Your task to perform on an android device: change keyboard looks Image 0: 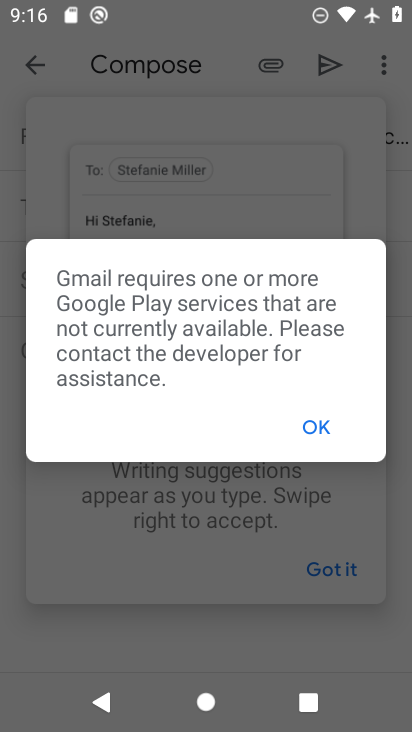
Step 0: press home button
Your task to perform on an android device: change keyboard looks Image 1: 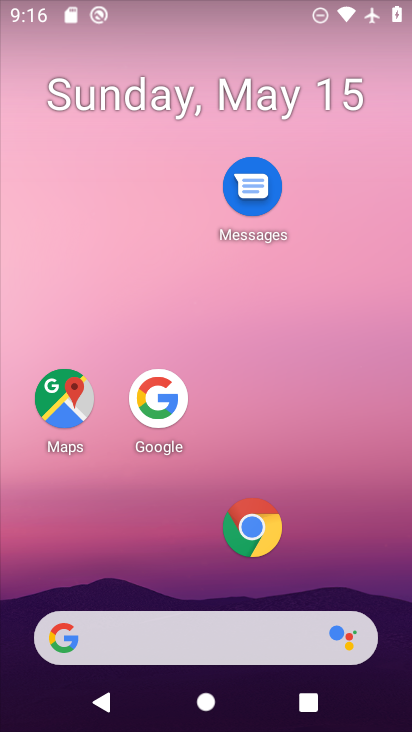
Step 1: drag from (176, 640) to (280, 202)
Your task to perform on an android device: change keyboard looks Image 2: 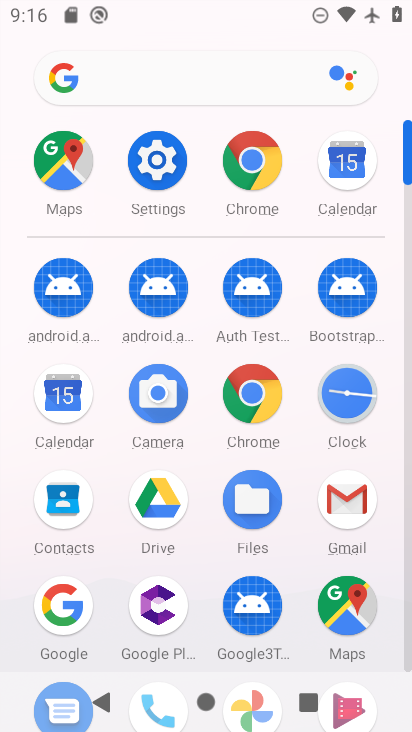
Step 2: click (154, 172)
Your task to perform on an android device: change keyboard looks Image 3: 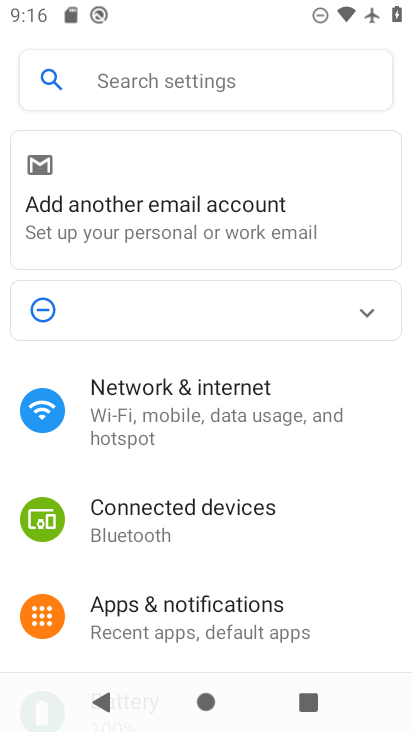
Step 3: drag from (203, 563) to (258, 75)
Your task to perform on an android device: change keyboard looks Image 4: 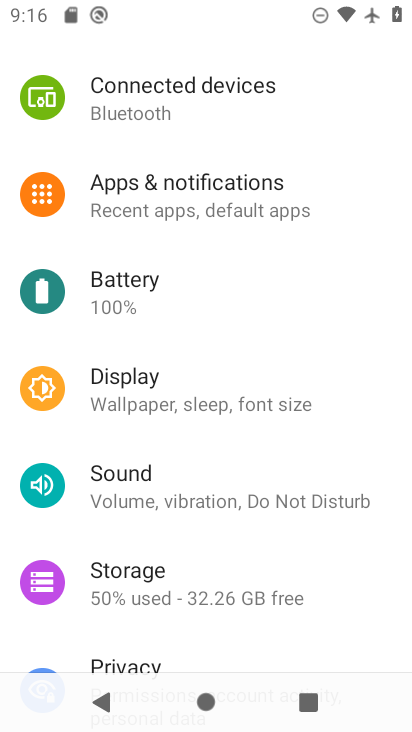
Step 4: drag from (211, 635) to (259, 104)
Your task to perform on an android device: change keyboard looks Image 5: 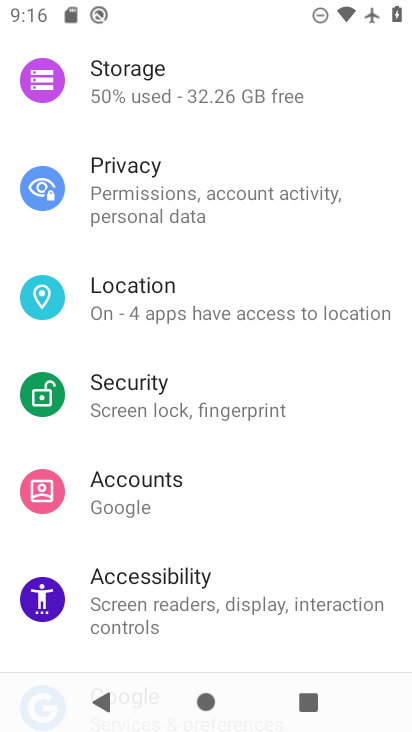
Step 5: drag from (241, 583) to (285, 176)
Your task to perform on an android device: change keyboard looks Image 6: 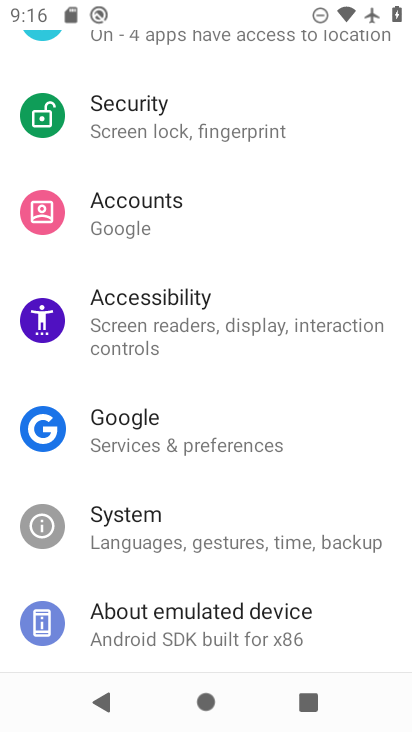
Step 6: click (138, 540)
Your task to perform on an android device: change keyboard looks Image 7: 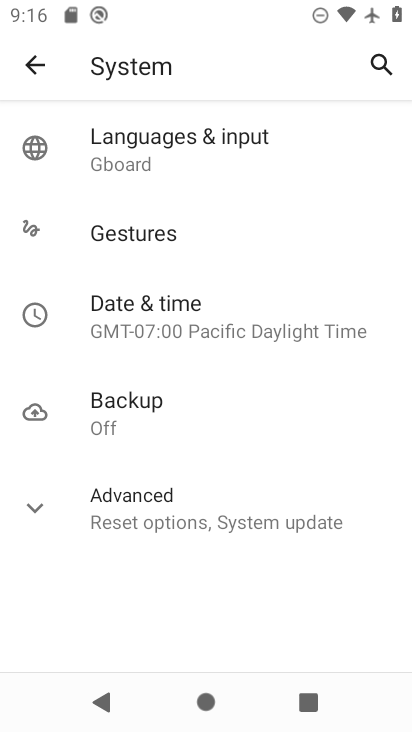
Step 7: click (137, 154)
Your task to perform on an android device: change keyboard looks Image 8: 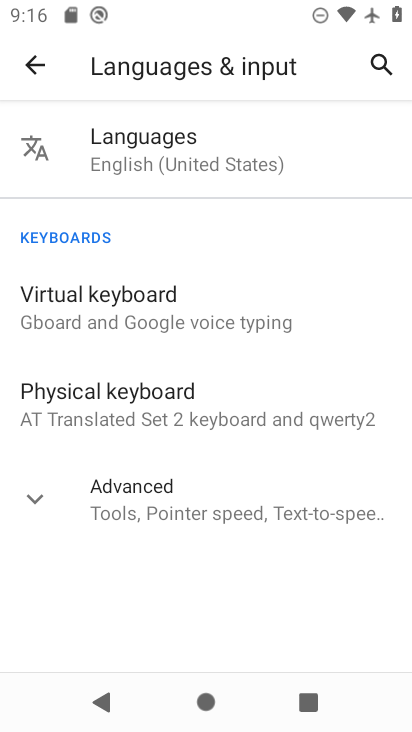
Step 8: click (108, 302)
Your task to perform on an android device: change keyboard looks Image 9: 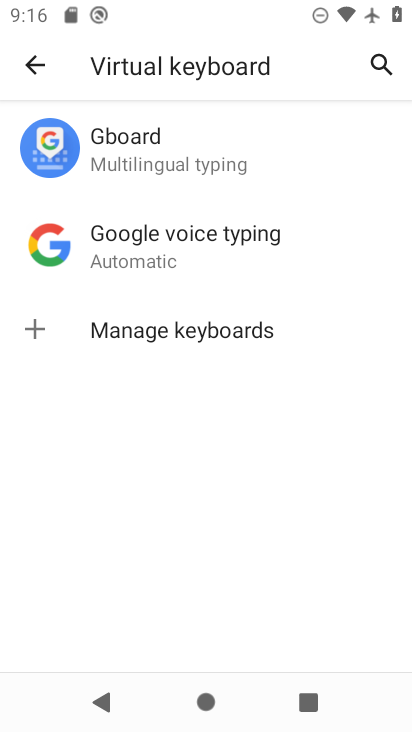
Step 9: click (102, 165)
Your task to perform on an android device: change keyboard looks Image 10: 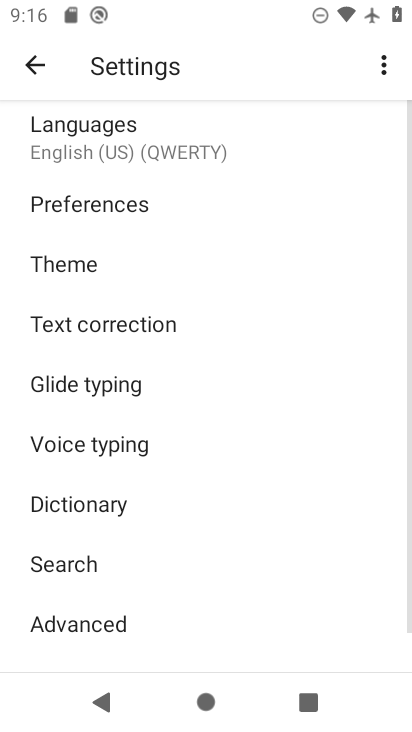
Step 10: click (75, 258)
Your task to perform on an android device: change keyboard looks Image 11: 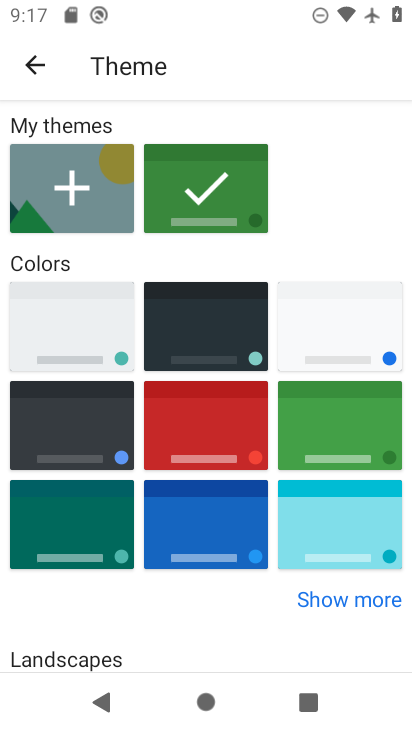
Step 11: click (205, 532)
Your task to perform on an android device: change keyboard looks Image 12: 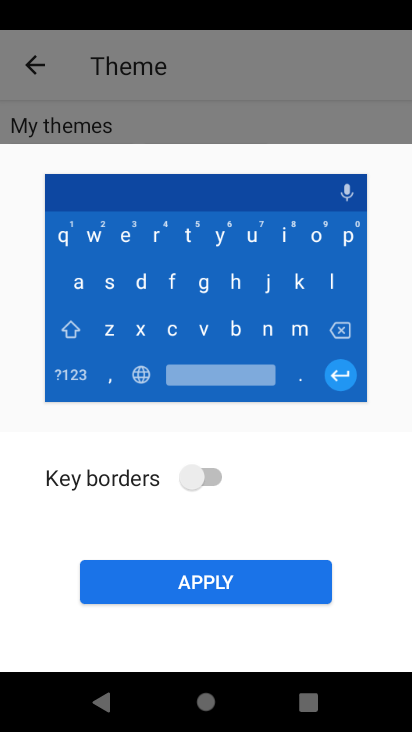
Step 12: click (191, 576)
Your task to perform on an android device: change keyboard looks Image 13: 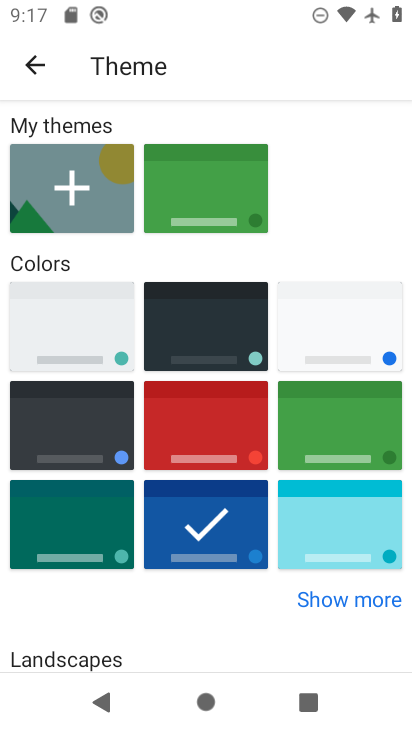
Step 13: task complete